Your task to perform on an android device: Search for sushi restaurants on Maps Image 0: 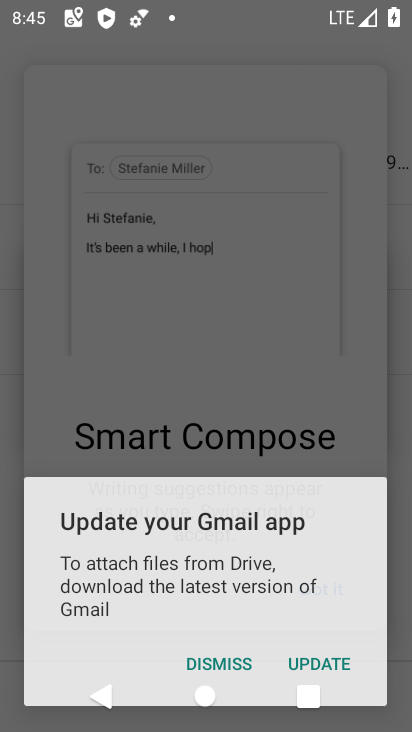
Step 0: press back button
Your task to perform on an android device: Search for sushi restaurants on Maps Image 1: 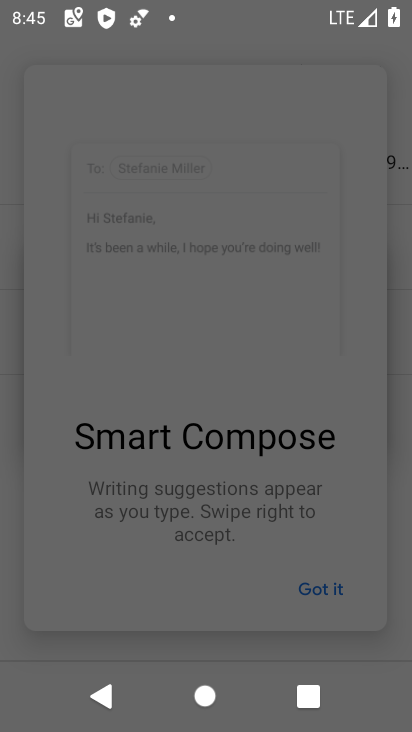
Step 1: press back button
Your task to perform on an android device: Search for sushi restaurants on Maps Image 2: 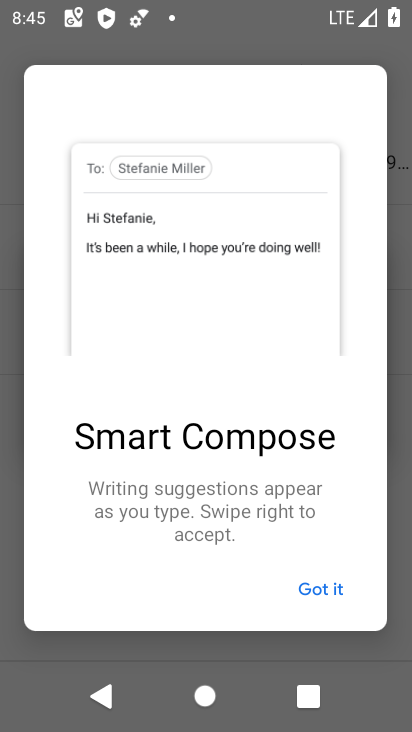
Step 2: click (335, 594)
Your task to perform on an android device: Search for sushi restaurants on Maps Image 3: 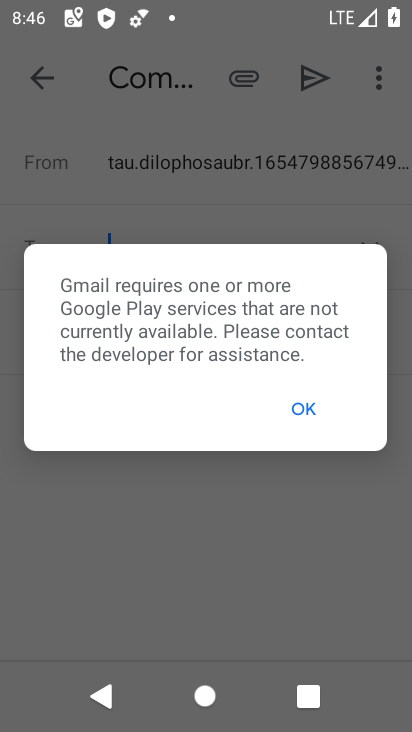
Step 3: click (301, 404)
Your task to perform on an android device: Search for sushi restaurants on Maps Image 4: 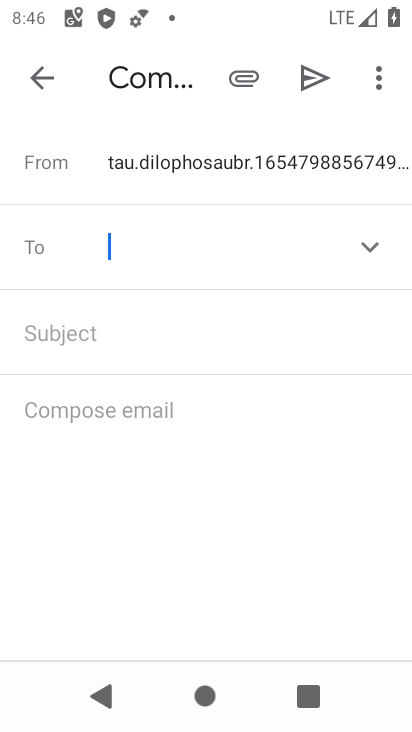
Step 4: press home button
Your task to perform on an android device: Search for sushi restaurants on Maps Image 5: 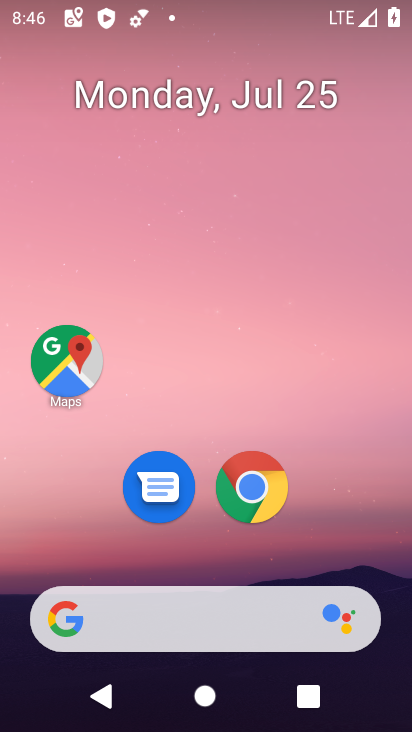
Step 5: click (73, 354)
Your task to perform on an android device: Search for sushi restaurants on Maps Image 6: 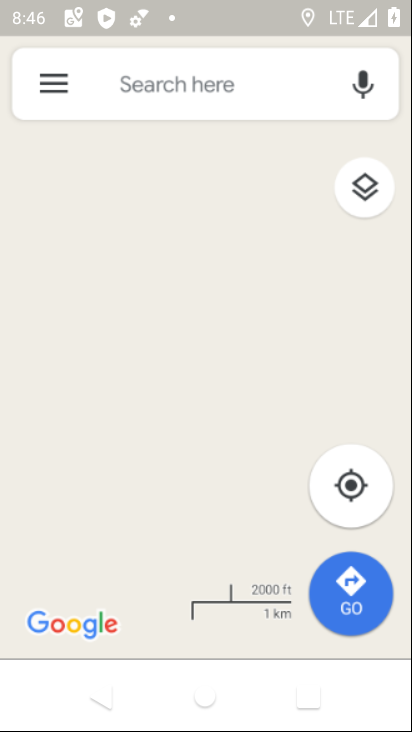
Step 6: click (219, 98)
Your task to perform on an android device: Search for sushi restaurants on Maps Image 7: 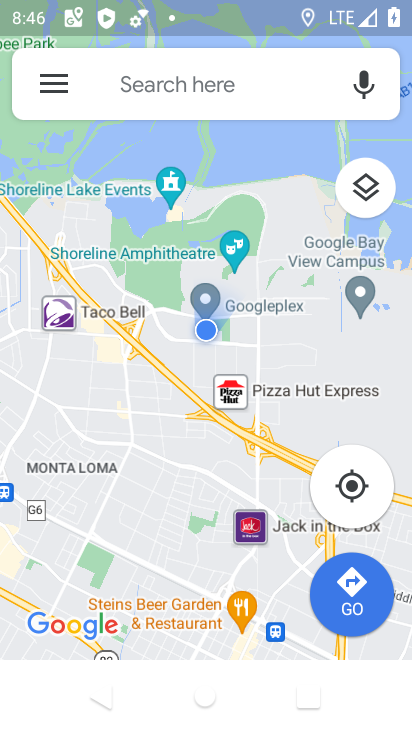
Step 7: click (137, 84)
Your task to perform on an android device: Search for sushi restaurants on Maps Image 8: 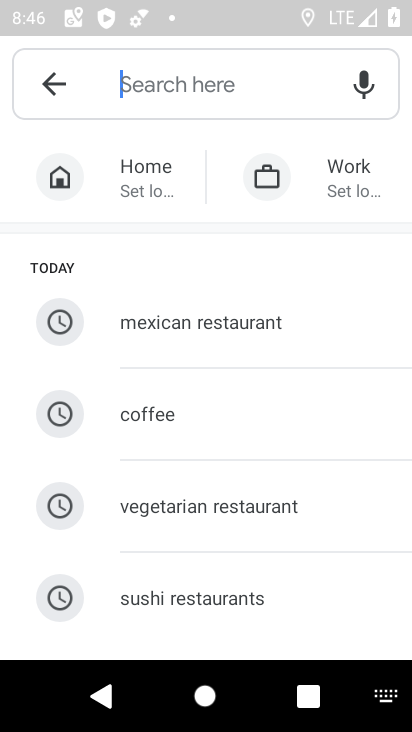
Step 8: click (202, 586)
Your task to perform on an android device: Search for sushi restaurants on Maps Image 9: 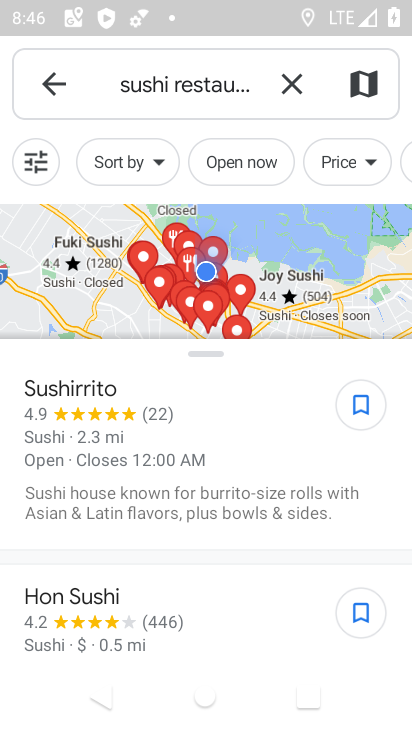
Step 9: task complete